Your task to perform on an android device: delete the emails in spam in the gmail app Image 0: 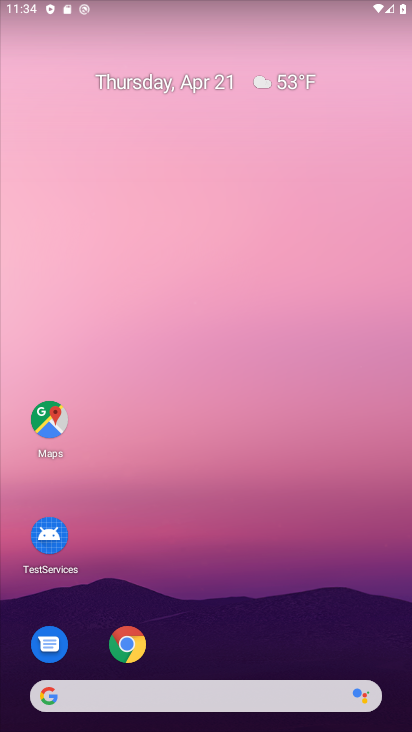
Step 0: drag from (262, 524) to (164, 0)
Your task to perform on an android device: delete the emails in spam in the gmail app Image 1: 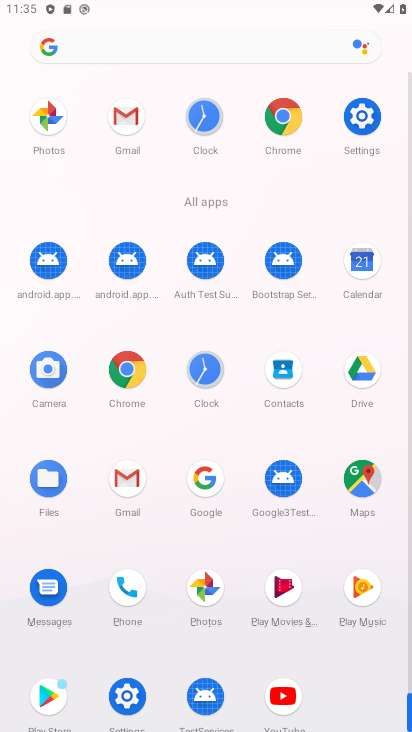
Step 1: click (128, 483)
Your task to perform on an android device: delete the emails in spam in the gmail app Image 2: 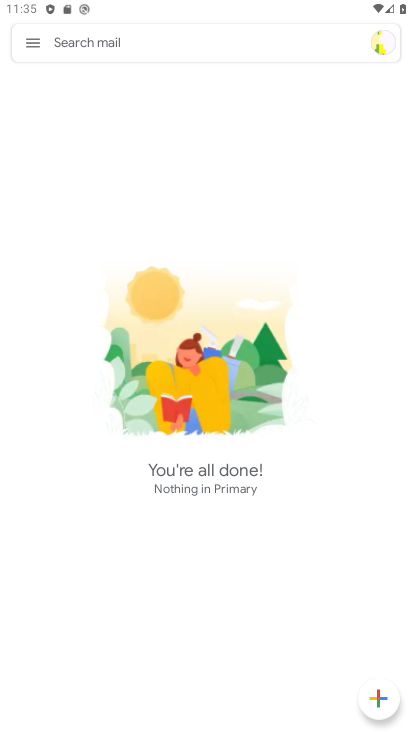
Step 2: click (36, 45)
Your task to perform on an android device: delete the emails in spam in the gmail app Image 3: 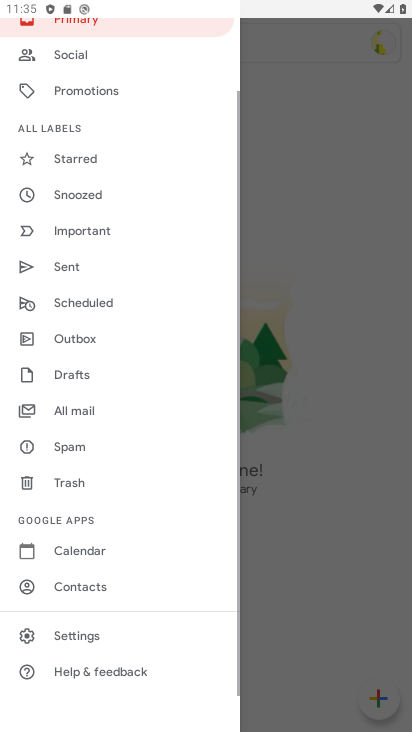
Step 3: drag from (93, 501) to (152, 274)
Your task to perform on an android device: delete the emails in spam in the gmail app Image 4: 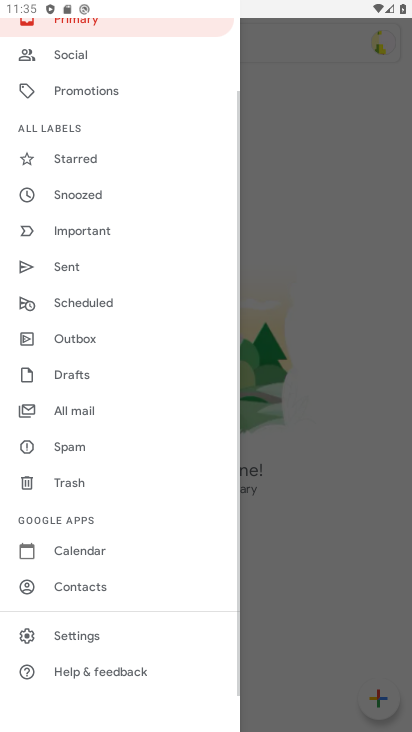
Step 4: click (71, 444)
Your task to perform on an android device: delete the emails in spam in the gmail app Image 5: 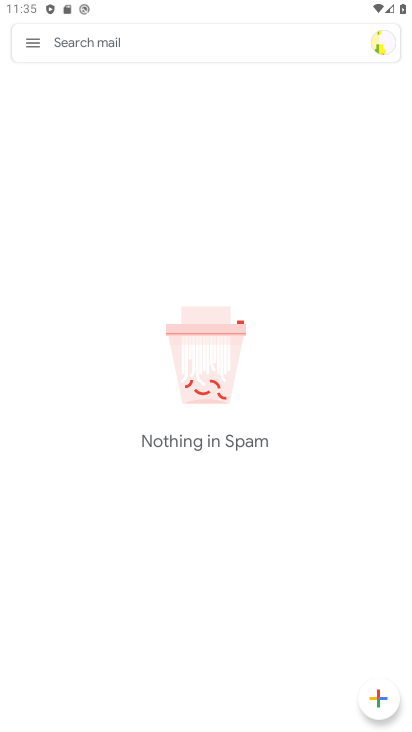
Step 5: task complete